Your task to perform on an android device: Open the Play Movies app and select the watchlist tab. Image 0: 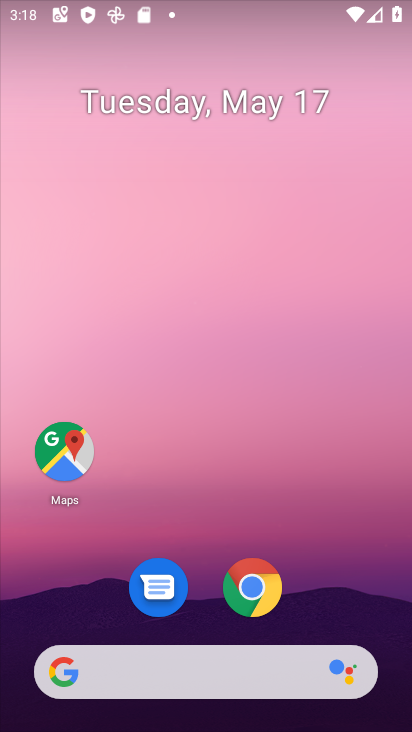
Step 0: drag from (289, 648) to (318, 11)
Your task to perform on an android device: Open the Play Movies app and select the watchlist tab. Image 1: 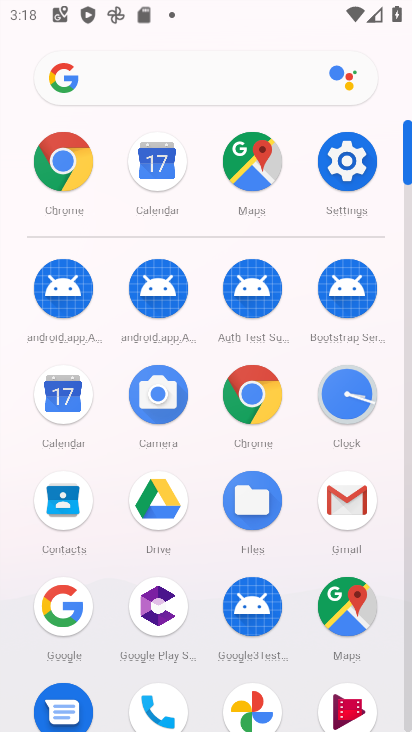
Step 1: drag from (298, 668) to (308, 322)
Your task to perform on an android device: Open the Play Movies app and select the watchlist tab. Image 2: 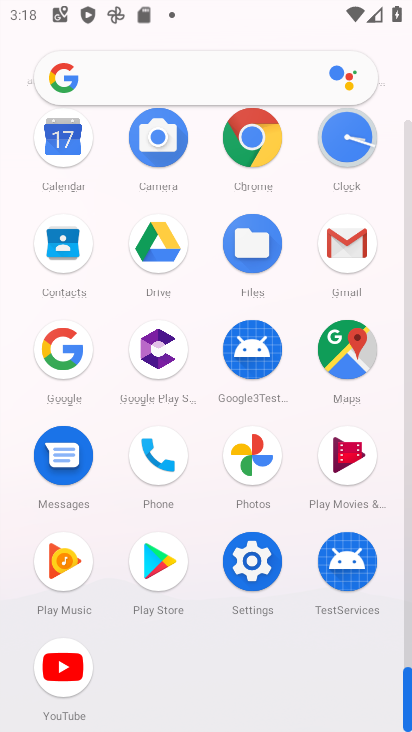
Step 2: click (331, 464)
Your task to perform on an android device: Open the Play Movies app and select the watchlist tab. Image 3: 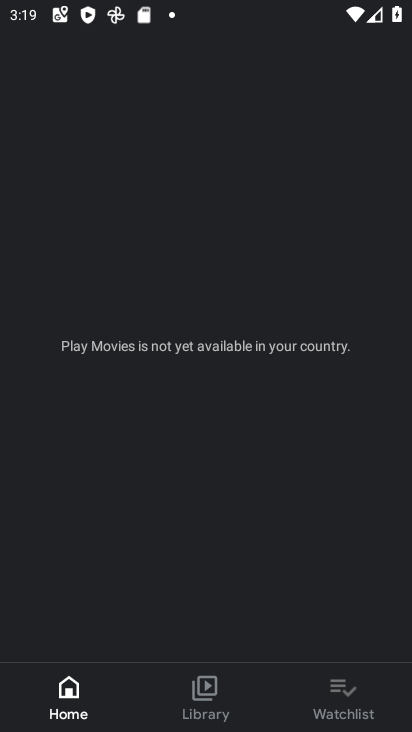
Step 3: click (358, 703)
Your task to perform on an android device: Open the Play Movies app and select the watchlist tab. Image 4: 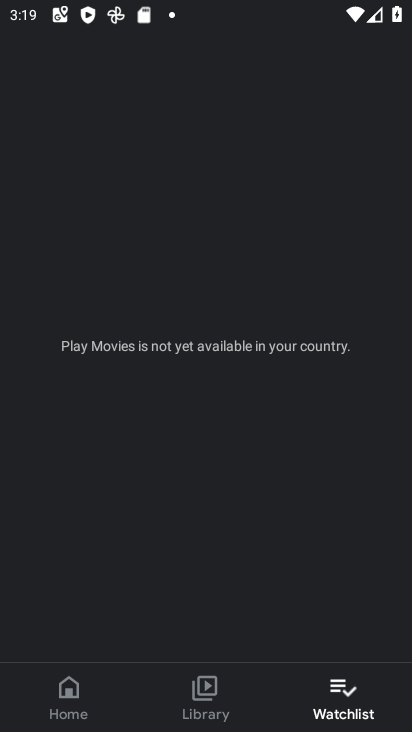
Step 4: task complete